Your task to perform on an android device: toggle airplane mode Image 0: 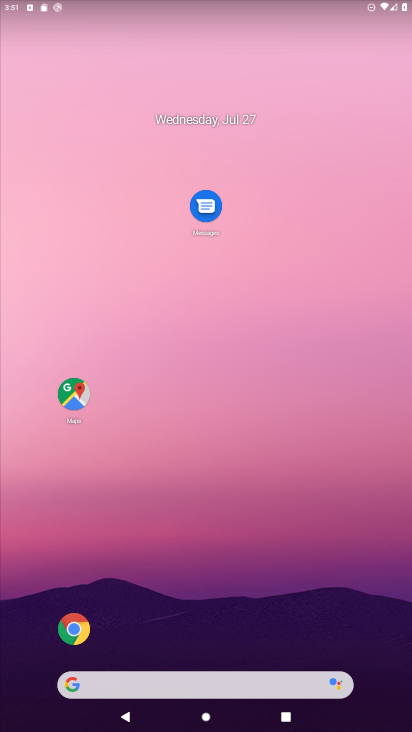
Step 0: drag from (299, 10) to (199, 394)
Your task to perform on an android device: toggle airplane mode Image 1: 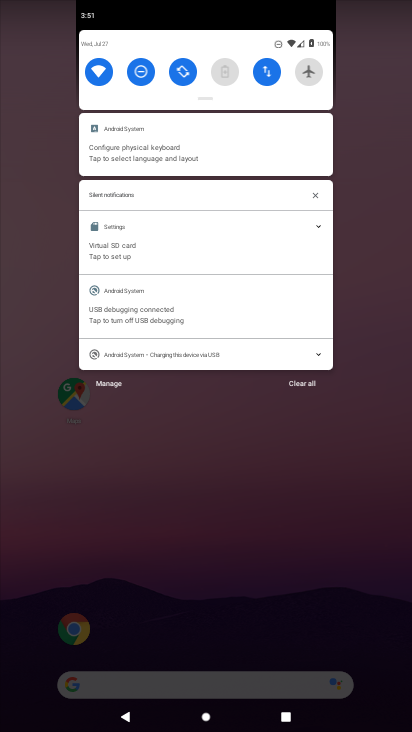
Step 1: click (305, 79)
Your task to perform on an android device: toggle airplane mode Image 2: 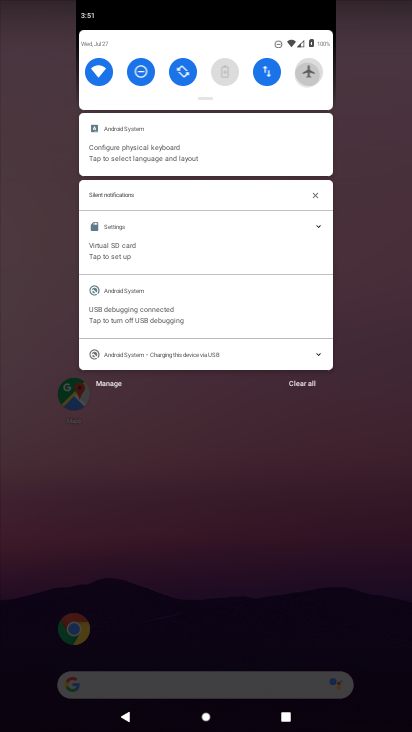
Step 2: click (305, 79)
Your task to perform on an android device: toggle airplane mode Image 3: 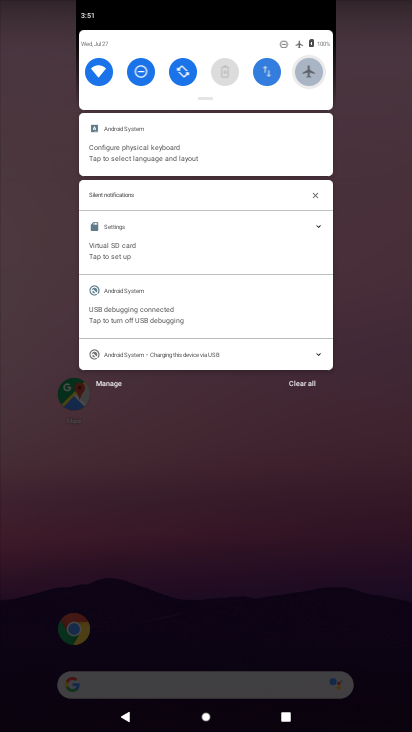
Step 3: click (305, 79)
Your task to perform on an android device: toggle airplane mode Image 4: 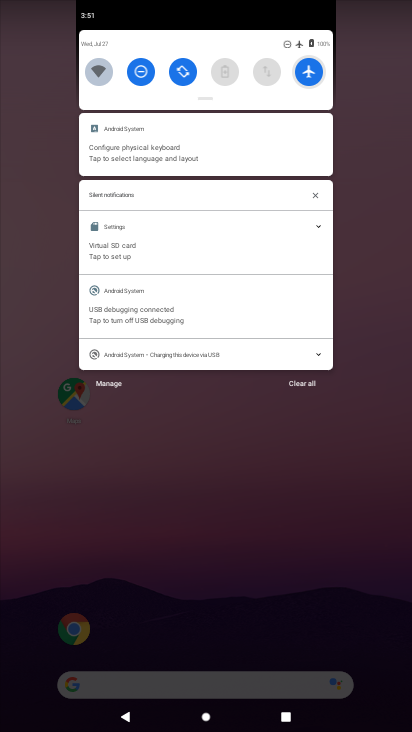
Step 4: click (305, 79)
Your task to perform on an android device: toggle airplane mode Image 5: 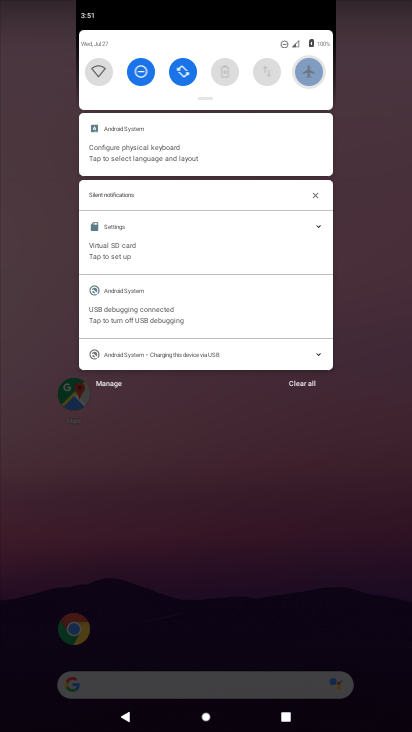
Step 5: click (305, 79)
Your task to perform on an android device: toggle airplane mode Image 6: 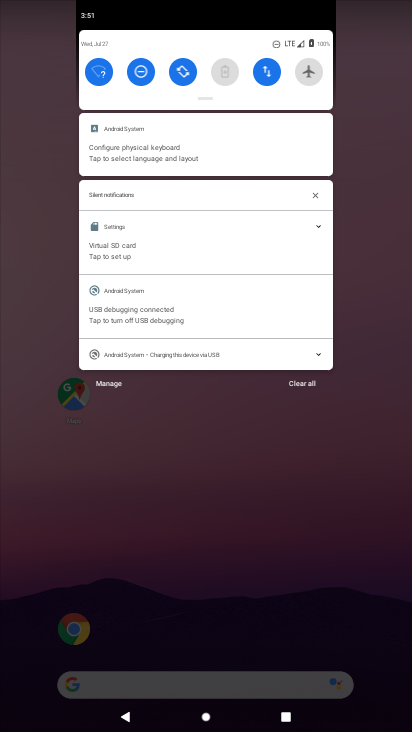
Step 6: task complete